Your task to perform on an android device: create a new album in the google photos Image 0: 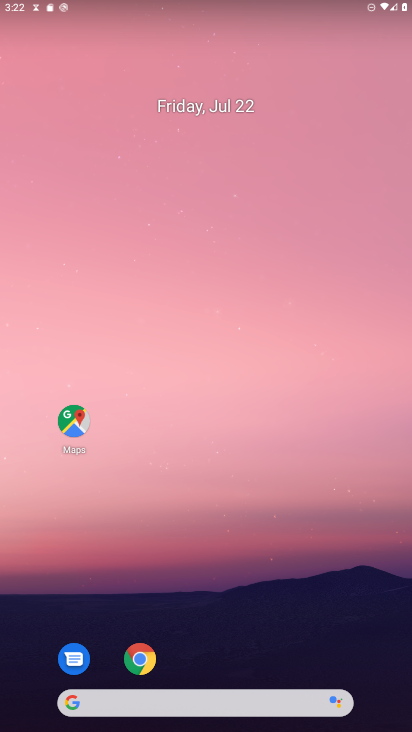
Step 0: drag from (318, 520) to (232, 19)
Your task to perform on an android device: create a new album in the google photos Image 1: 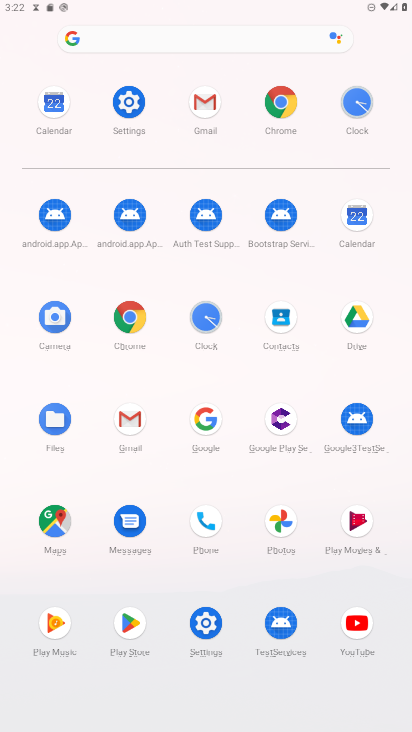
Step 1: click (280, 518)
Your task to perform on an android device: create a new album in the google photos Image 2: 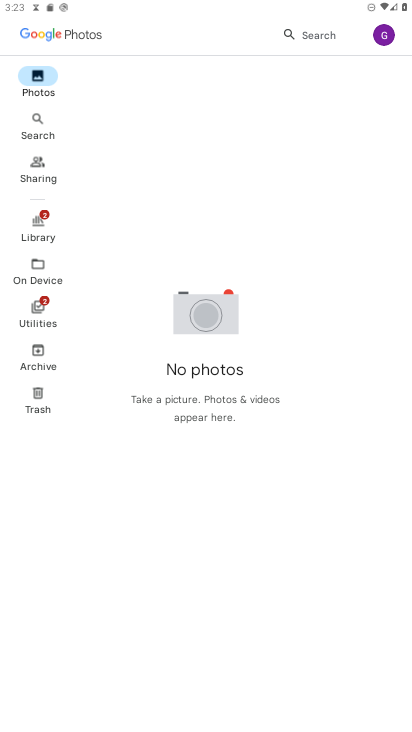
Step 2: task complete